Your task to perform on an android device: Is it going to rain this weekend? Image 0: 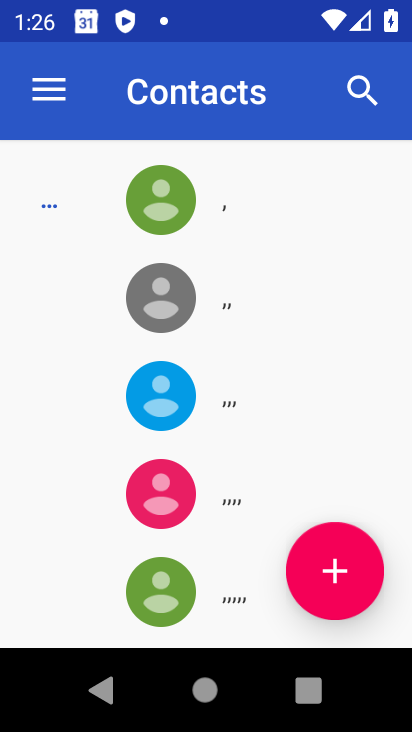
Step 0: press home button
Your task to perform on an android device: Is it going to rain this weekend? Image 1: 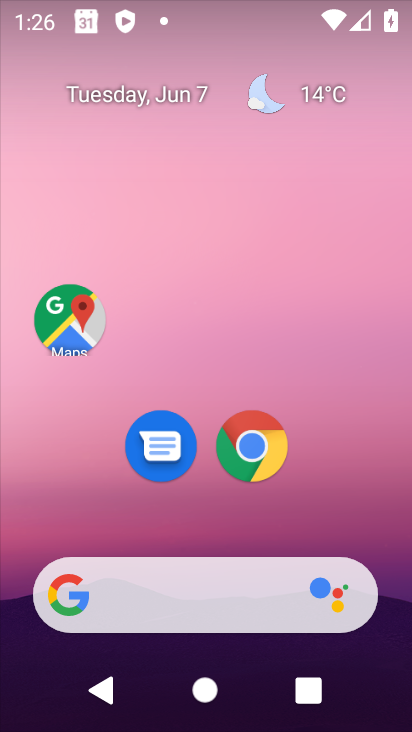
Step 1: click (255, 541)
Your task to perform on an android device: Is it going to rain this weekend? Image 2: 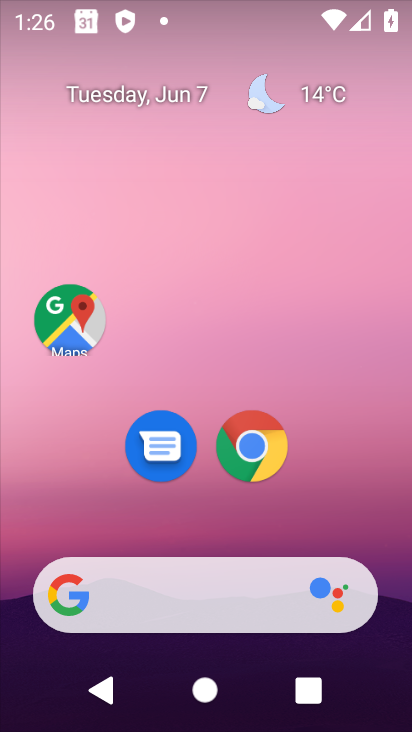
Step 2: click (253, 562)
Your task to perform on an android device: Is it going to rain this weekend? Image 3: 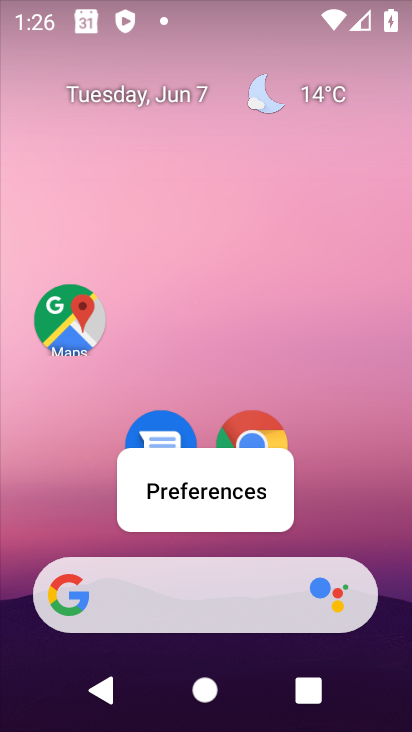
Step 3: click (256, 582)
Your task to perform on an android device: Is it going to rain this weekend? Image 4: 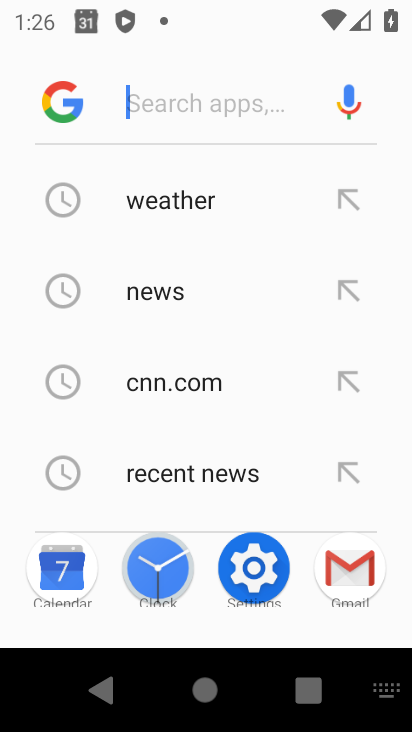
Step 4: click (262, 391)
Your task to perform on an android device: Is it going to rain this weekend? Image 5: 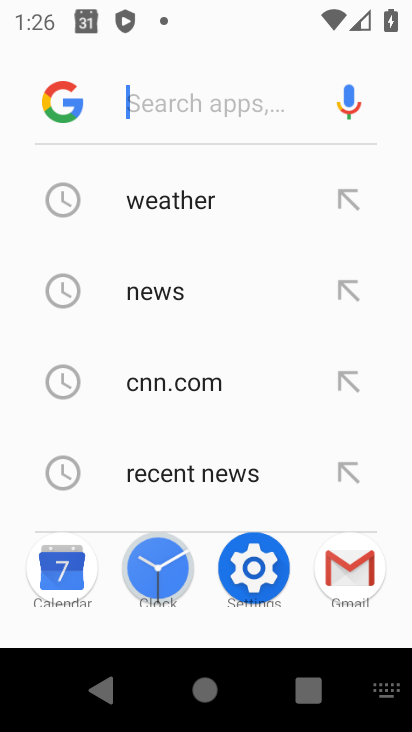
Step 5: click (262, 391)
Your task to perform on an android device: Is it going to rain this weekend? Image 6: 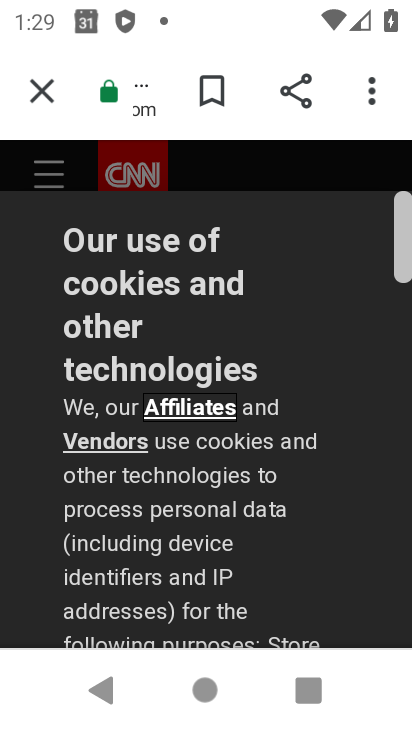
Step 6: press home button
Your task to perform on an android device: Is it going to rain this weekend? Image 7: 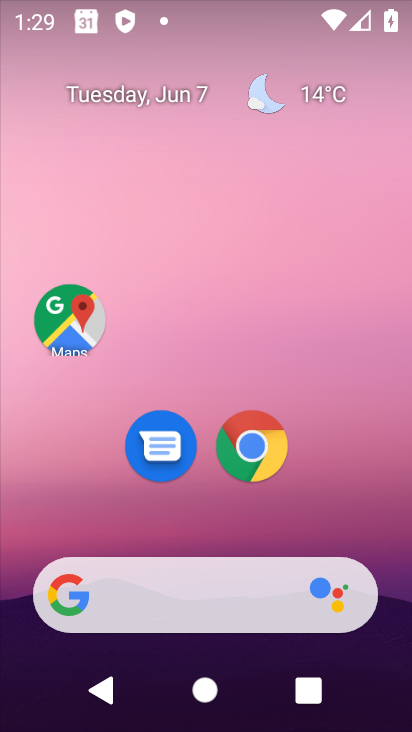
Step 7: click (177, 590)
Your task to perform on an android device: Is it going to rain this weekend? Image 8: 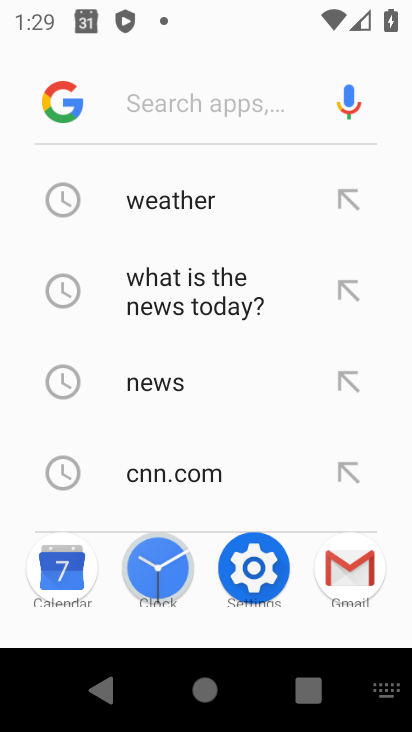
Step 8: type "Is it going to rain this weekend?"
Your task to perform on an android device: Is it going to rain this weekend? Image 9: 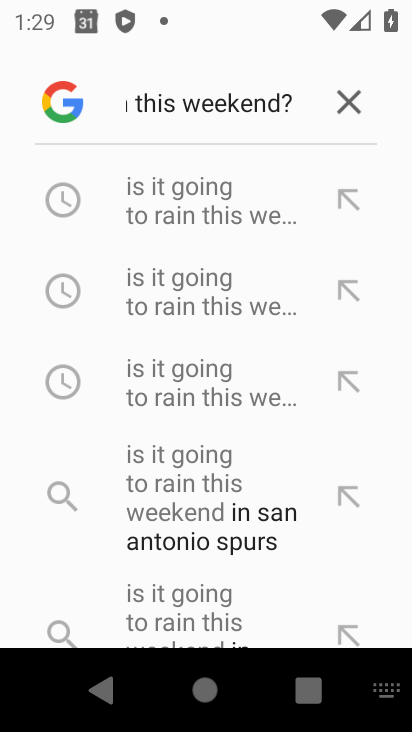
Step 9: click (232, 298)
Your task to perform on an android device: Is it going to rain this weekend? Image 10: 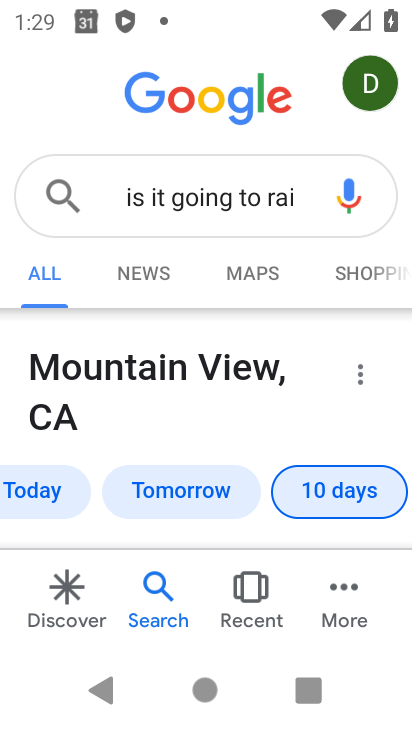
Step 10: task complete